Your task to perform on an android device: toggle javascript in the chrome app Image 0: 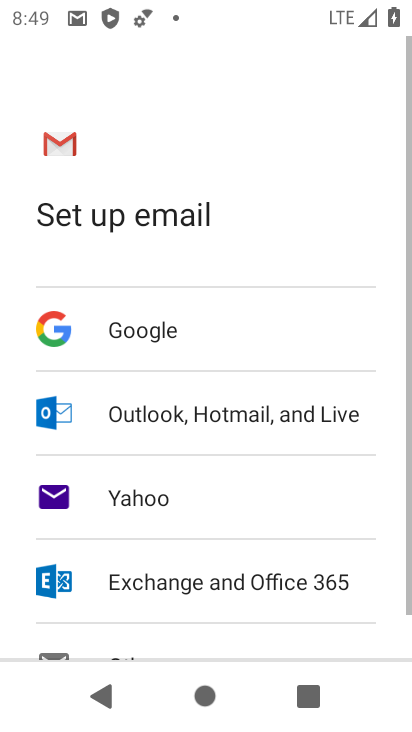
Step 0: press back button
Your task to perform on an android device: toggle javascript in the chrome app Image 1: 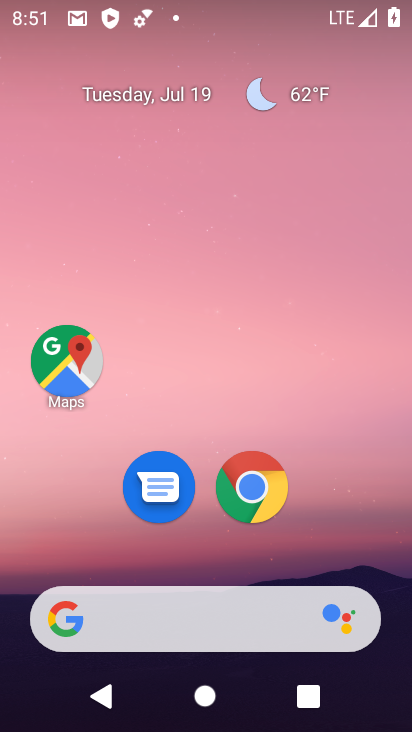
Step 1: click (270, 485)
Your task to perform on an android device: toggle javascript in the chrome app Image 2: 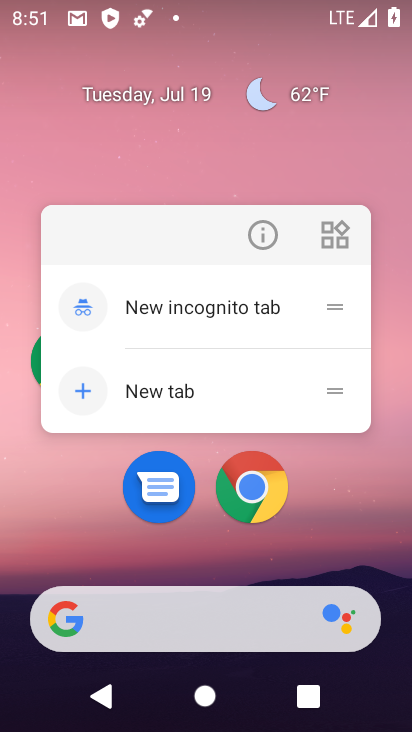
Step 2: click (260, 518)
Your task to perform on an android device: toggle javascript in the chrome app Image 3: 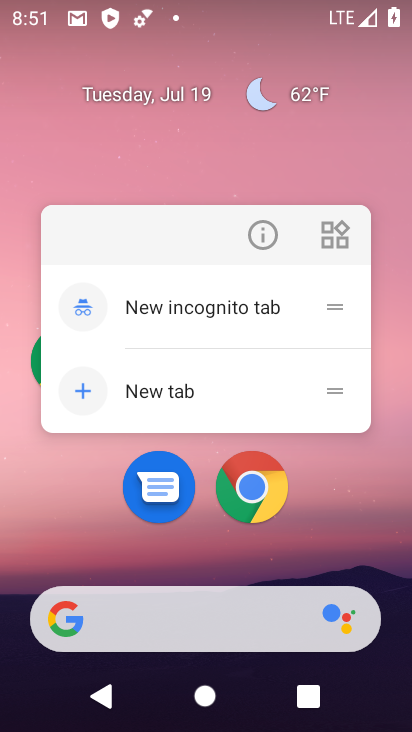
Step 3: click (252, 476)
Your task to perform on an android device: toggle javascript in the chrome app Image 4: 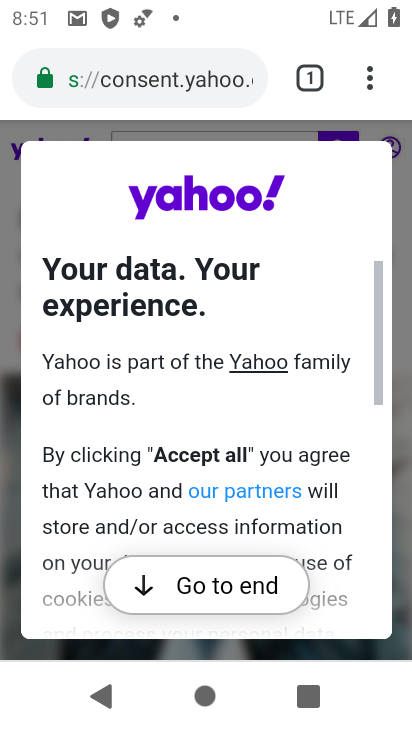
Step 4: drag from (372, 81) to (154, 552)
Your task to perform on an android device: toggle javascript in the chrome app Image 5: 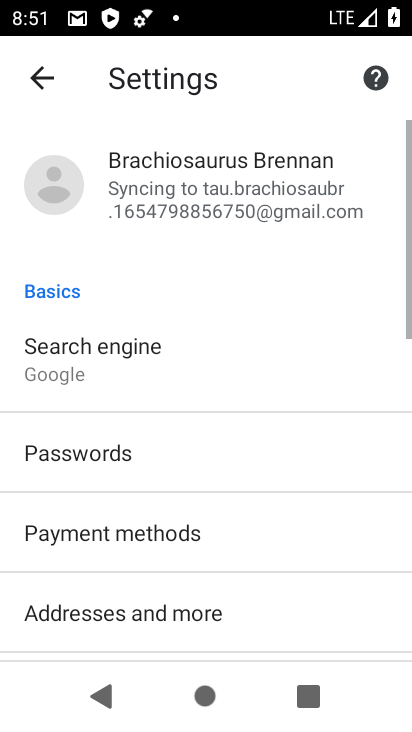
Step 5: drag from (161, 595) to (236, 114)
Your task to perform on an android device: toggle javascript in the chrome app Image 6: 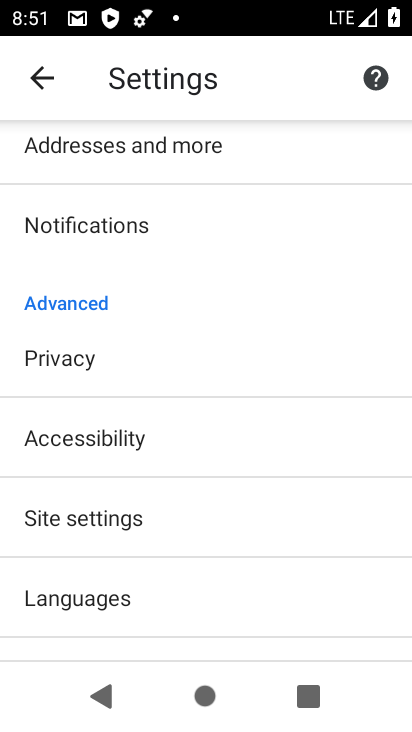
Step 6: click (143, 510)
Your task to perform on an android device: toggle javascript in the chrome app Image 7: 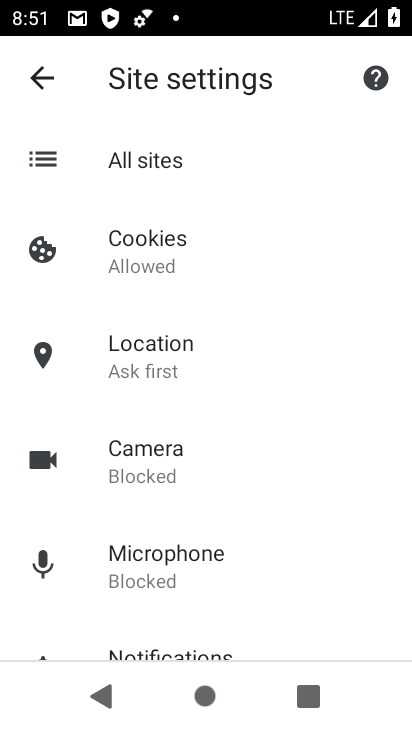
Step 7: drag from (152, 602) to (233, 208)
Your task to perform on an android device: toggle javascript in the chrome app Image 8: 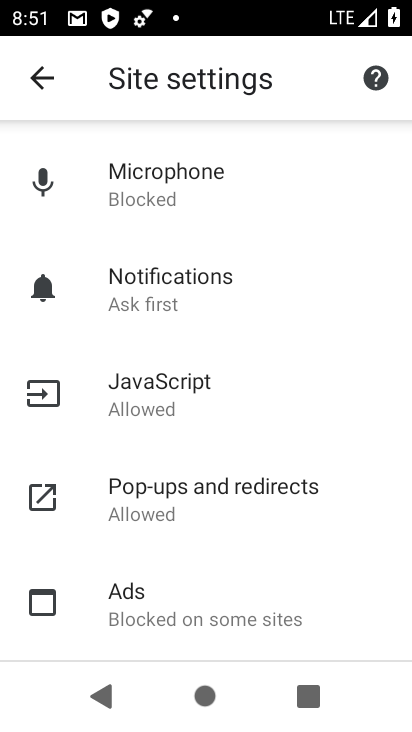
Step 8: click (193, 396)
Your task to perform on an android device: toggle javascript in the chrome app Image 9: 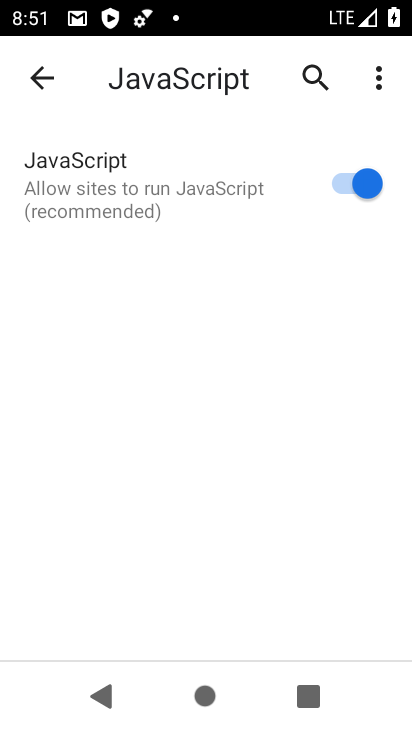
Step 9: click (365, 188)
Your task to perform on an android device: toggle javascript in the chrome app Image 10: 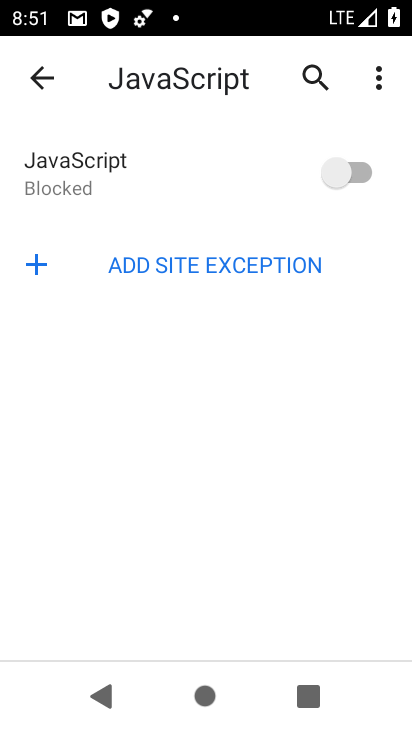
Step 10: task complete